Your task to perform on an android device: Is it going to rain tomorrow? Image 0: 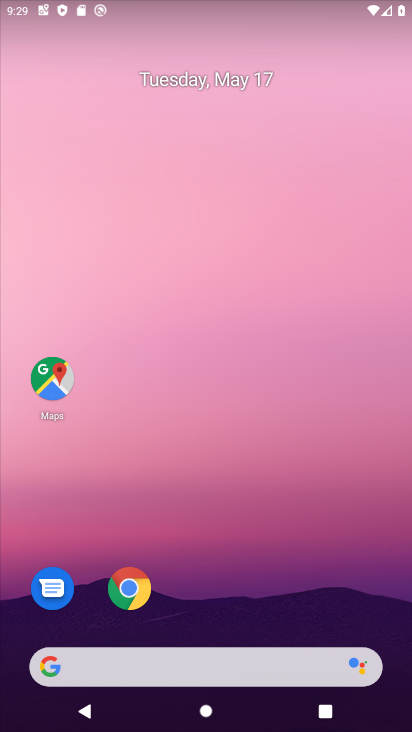
Step 0: click (229, 666)
Your task to perform on an android device: Is it going to rain tomorrow? Image 1: 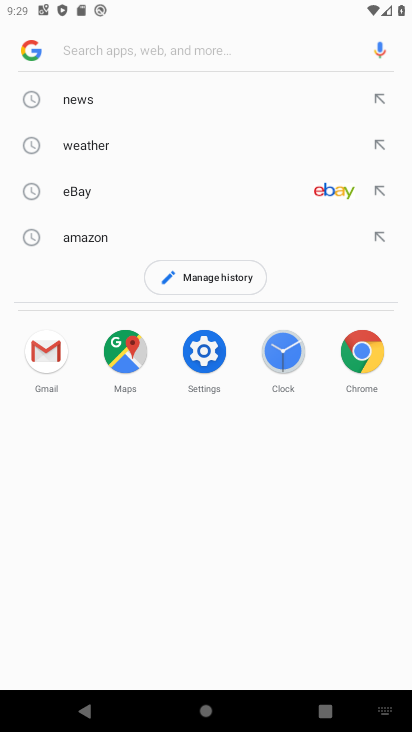
Step 1: click (103, 154)
Your task to perform on an android device: Is it going to rain tomorrow? Image 2: 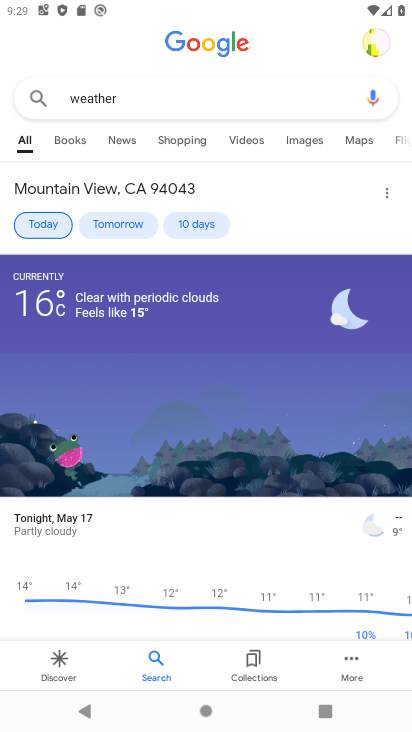
Step 2: drag from (122, 230) to (49, 230)
Your task to perform on an android device: Is it going to rain tomorrow? Image 3: 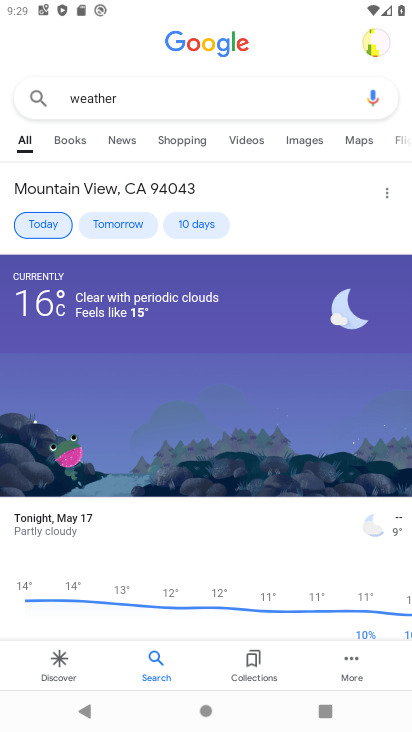
Step 3: click (125, 219)
Your task to perform on an android device: Is it going to rain tomorrow? Image 4: 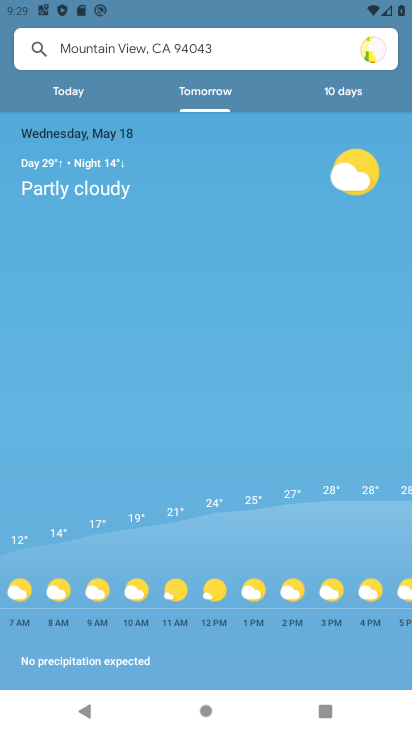
Step 4: task complete